Your task to perform on an android device: uninstall "Lyft - Rideshare, Bikes, Scooters & Transit" Image 0: 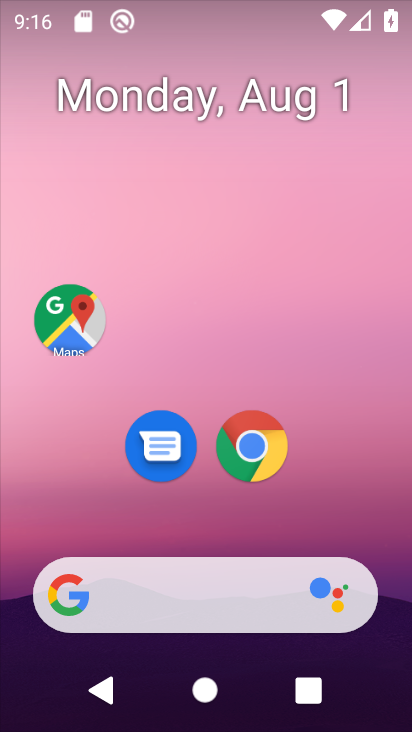
Step 0: drag from (194, 510) to (240, 134)
Your task to perform on an android device: uninstall "Lyft - Rideshare, Bikes, Scooters & Transit" Image 1: 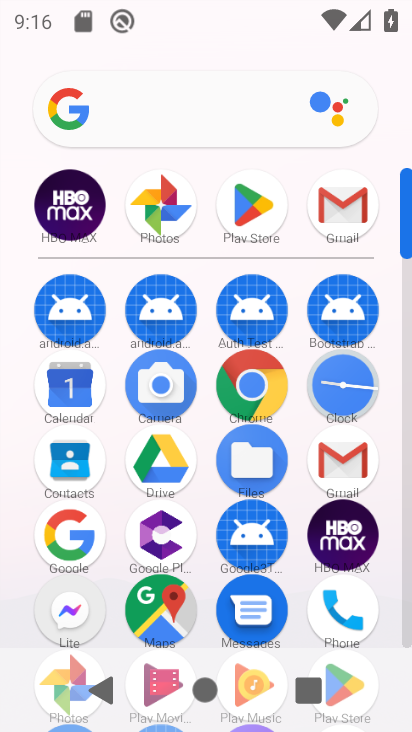
Step 1: click (243, 176)
Your task to perform on an android device: uninstall "Lyft - Rideshare, Bikes, Scooters & Transit" Image 2: 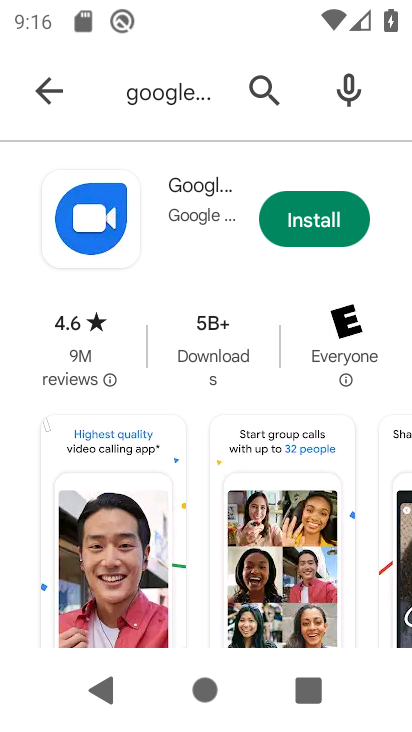
Step 2: click (256, 79)
Your task to perform on an android device: uninstall "Lyft - Rideshare, Bikes, Scooters & Transit" Image 3: 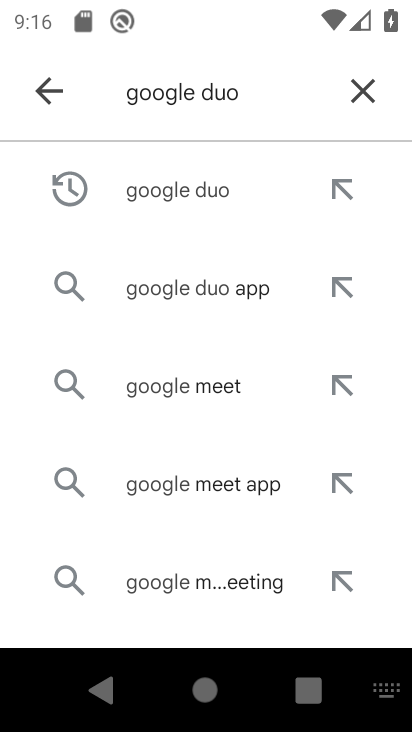
Step 3: click (349, 88)
Your task to perform on an android device: uninstall "Lyft - Rideshare, Bikes, Scooters & Transit" Image 4: 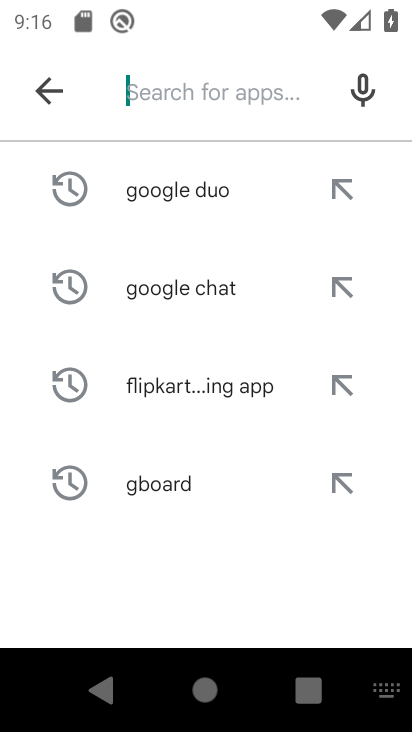
Step 4: type "Lyft - Rideshare, Bikes, Scooters & Transit"
Your task to perform on an android device: uninstall "Lyft - Rideshare, Bikes, Scooters & Transit" Image 5: 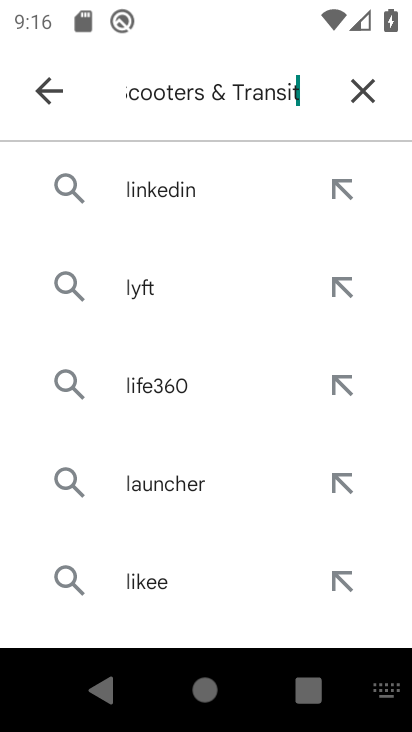
Step 5: type ""
Your task to perform on an android device: uninstall "Lyft - Rideshare, Bikes, Scooters & Transit" Image 6: 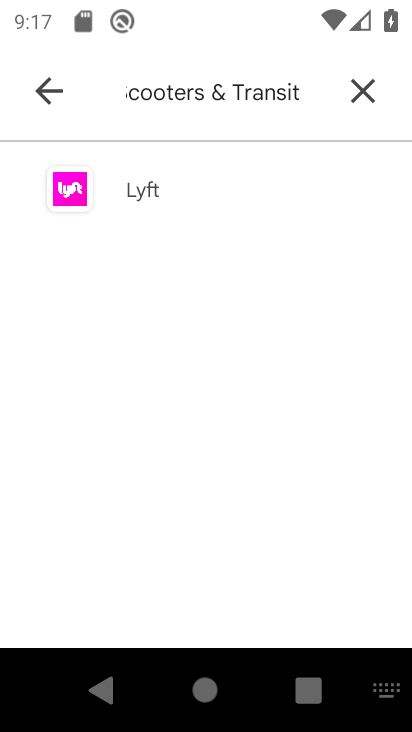
Step 6: click (186, 187)
Your task to perform on an android device: uninstall "Lyft - Rideshare, Bikes, Scooters & Transit" Image 7: 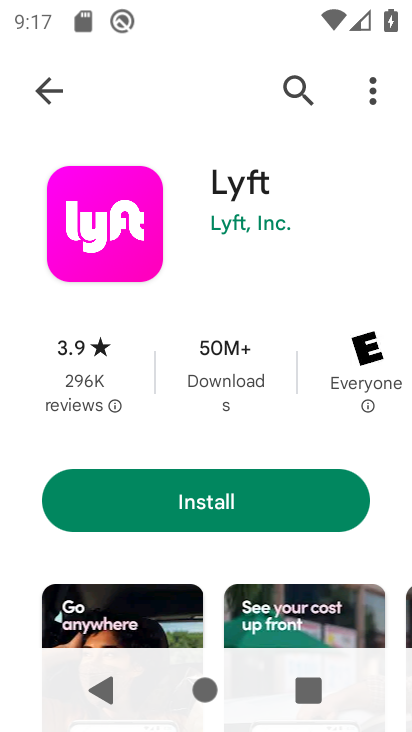
Step 7: task complete